Your task to perform on an android device: see sites visited before in the chrome app Image 0: 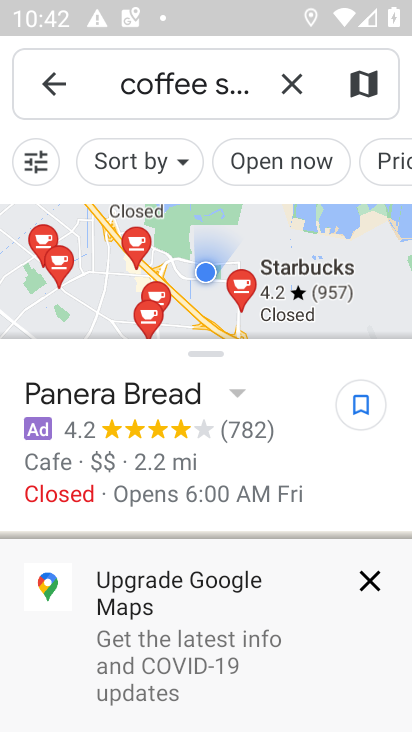
Step 0: press home button
Your task to perform on an android device: see sites visited before in the chrome app Image 1: 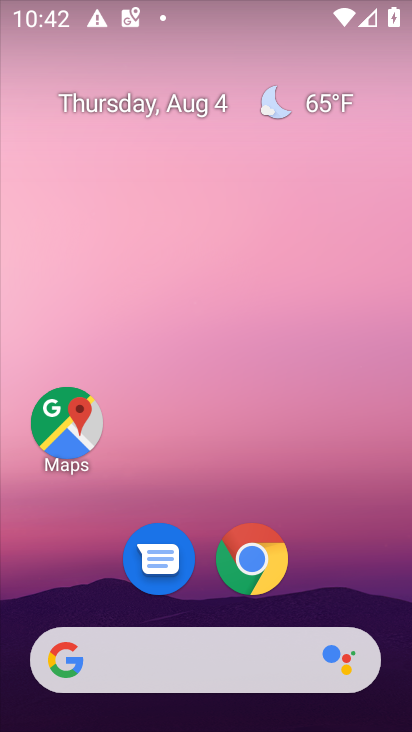
Step 1: click (247, 569)
Your task to perform on an android device: see sites visited before in the chrome app Image 2: 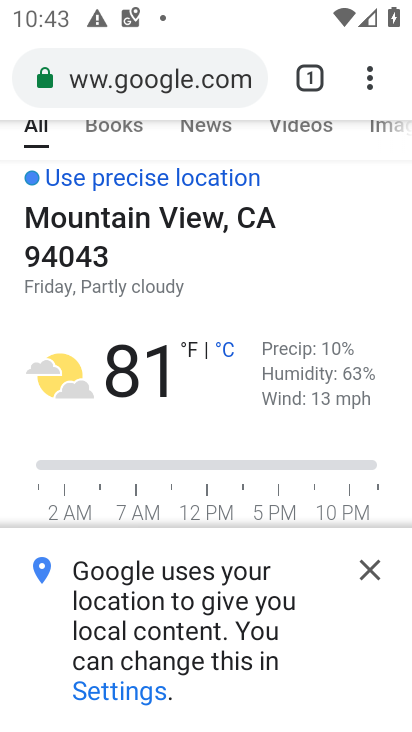
Step 2: task complete